Your task to perform on an android device: Open eBay Image 0: 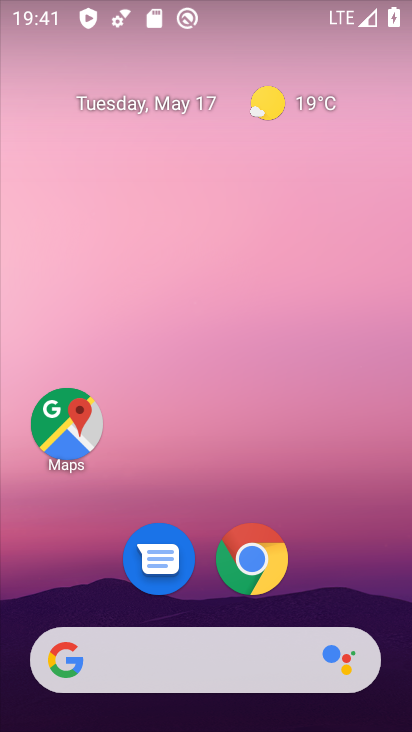
Step 0: drag from (206, 557) to (214, 60)
Your task to perform on an android device: Open eBay Image 1: 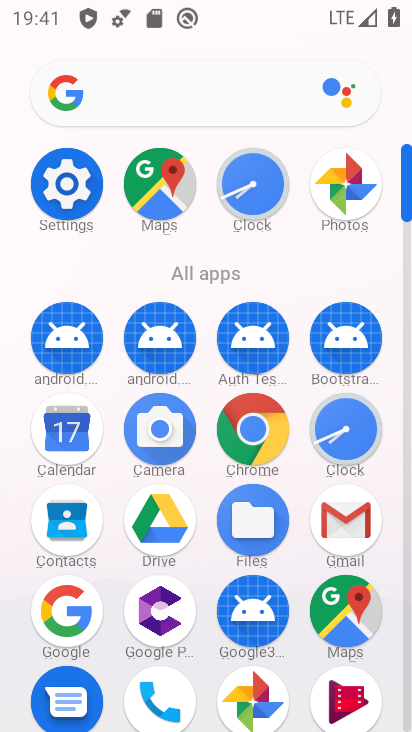
Step 1: click (163, 93)
Your task to perform on an android device: Open eBay Image 2: 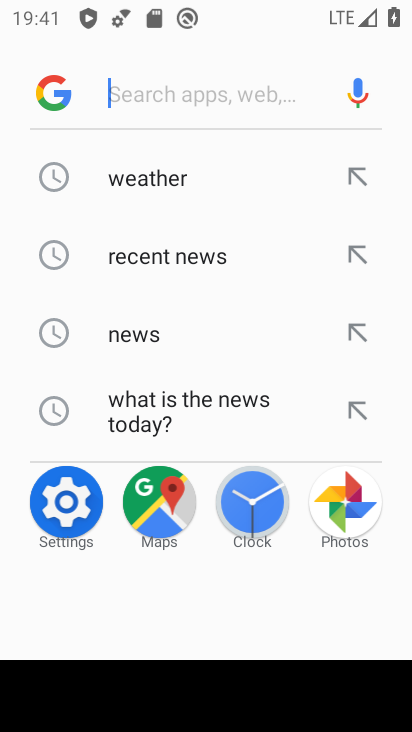
Step 2: type "ebay"
Your task to perform on an android device: Open eBay Image 3: 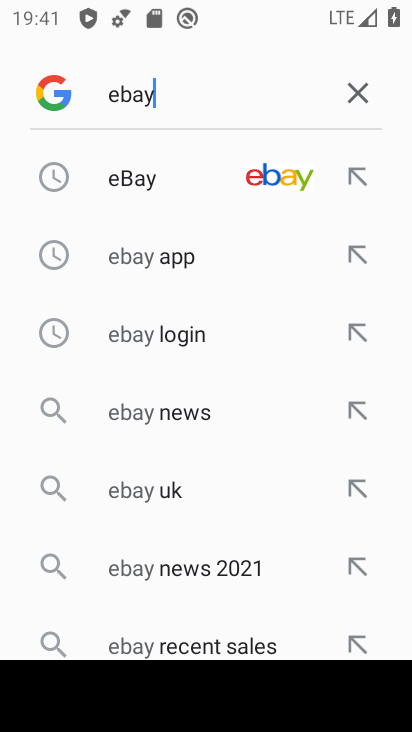
Step 3: click (107, 185)
Your task to perform on an android device: Open eBay Image 4: 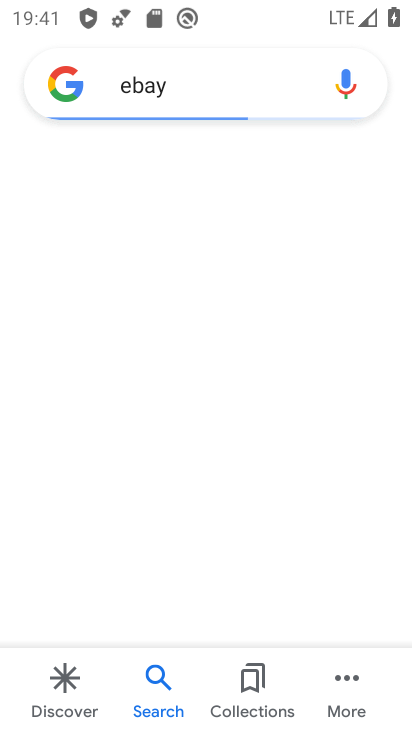
Step 4: task complete